Your task to perform on an android device: set the stopwatch Image 0: 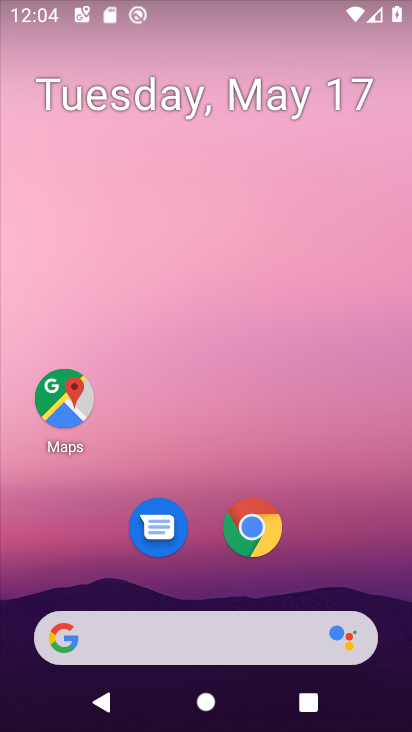
Step 0: drag from (319, 302) to (330, 128)
Your task to perform on an android device: set the stopwatch Image 1: 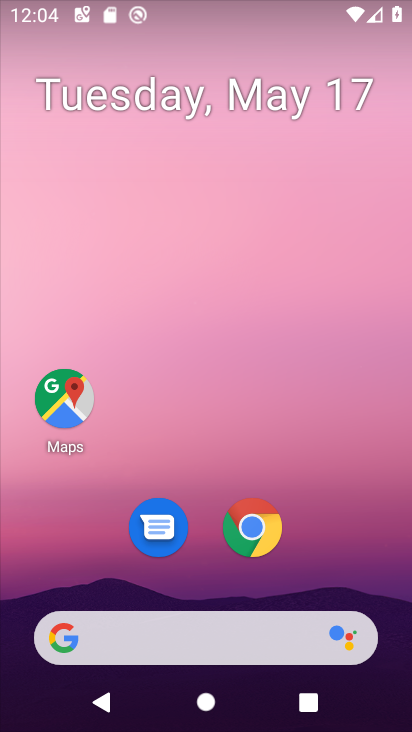
Step 1: drag from (331, 540) to (354, 56)
Your task to perform on an android device: set the stopwatch Image 2: 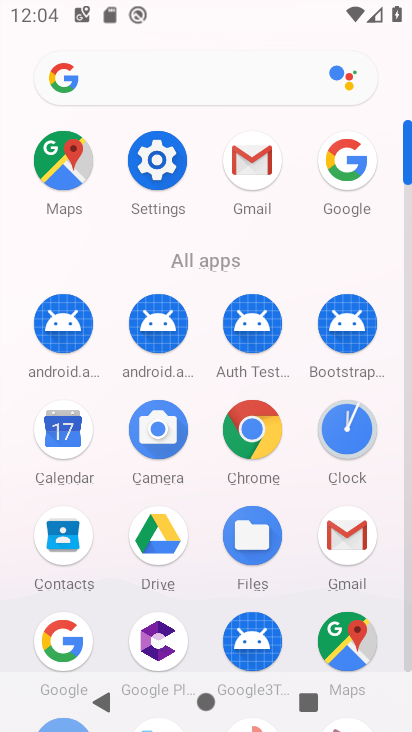
Step 2: click (347, 432)
Your task to perform on an android device: set the stopwatch Image 3: 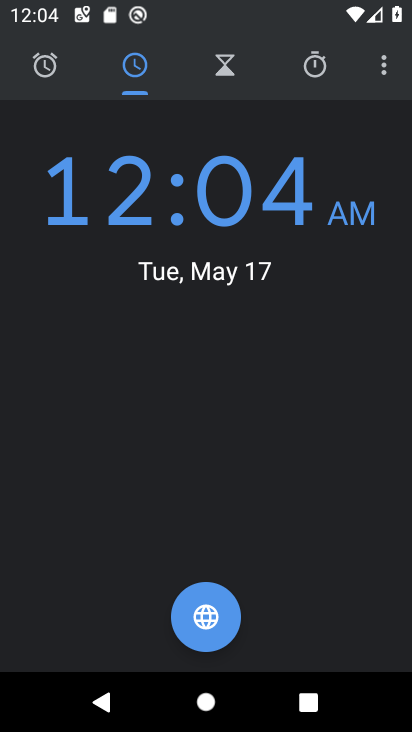
Step 3: click (328, 43)
Your task to perform on an android device: set the stopwatch Image 4: 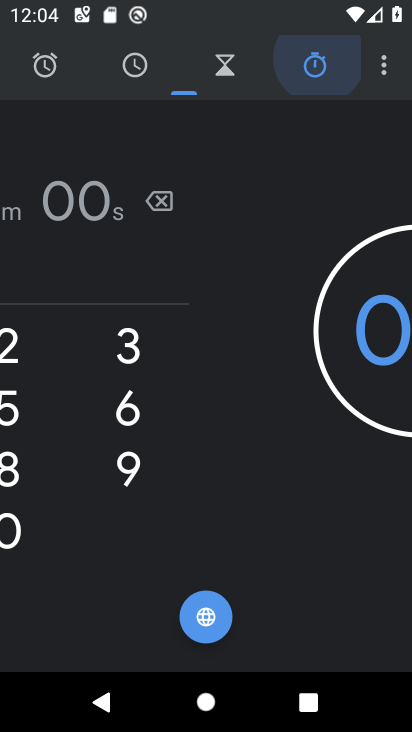
Step 4: click (326, 72)
Your task to perform on an android device: set the stopwatch Image 5: 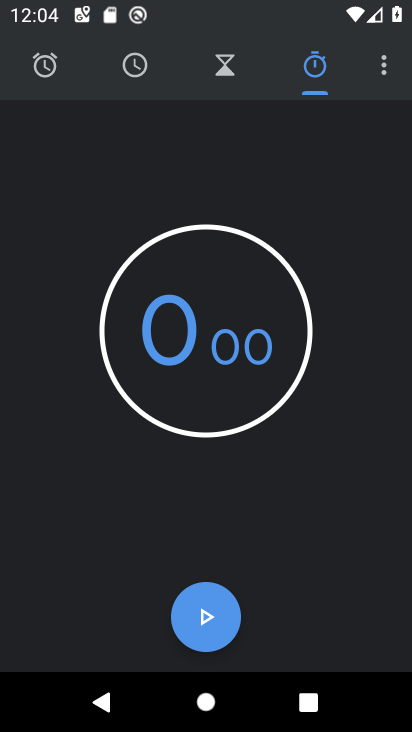
Step 5: click (207, 616)
Your task to perform on an android device: set the stopwatch Image 6: 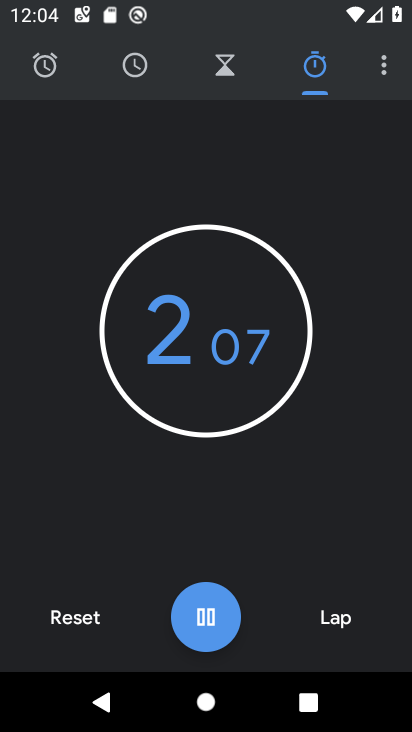
Step 6: task complete